Your task to perform on an android device: Search for Italian restaurants on Maps Image 0: 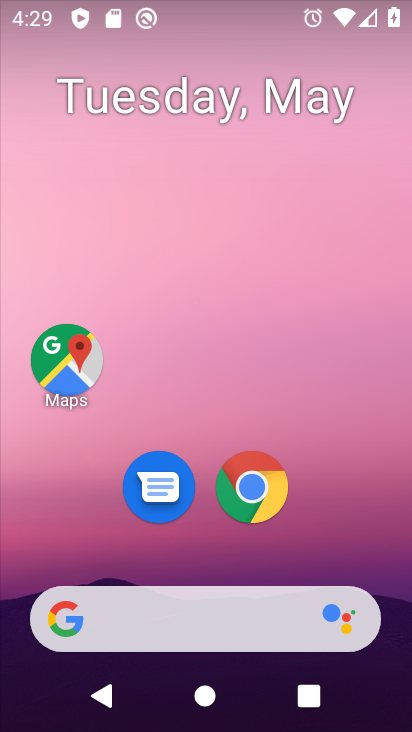
Step 0: click (65, 347)
Your task to perform on an android device: Search for Italian restaurants on Maps Image 1: 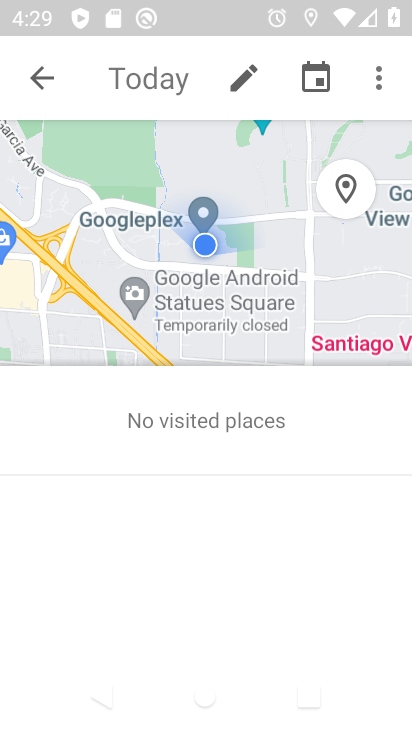
Step 1: click (52, 84)
Your task to perform on an android device: Search for Italian restaurants on Maps Image 2: 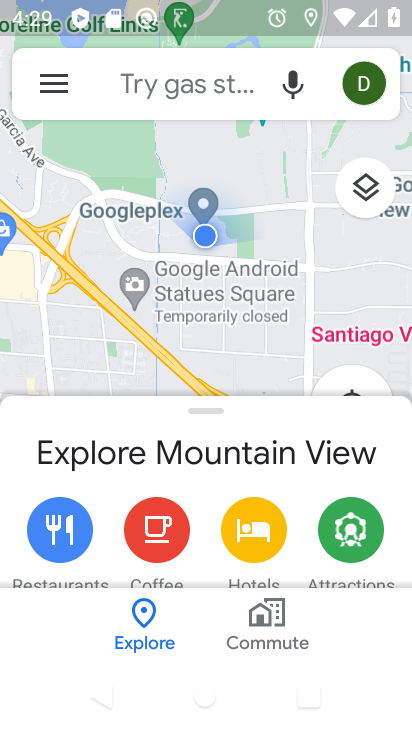
Step 2: click (157, 75)
Your task to perform on an android device: Search for Italian restaurants on Maps Image 3: 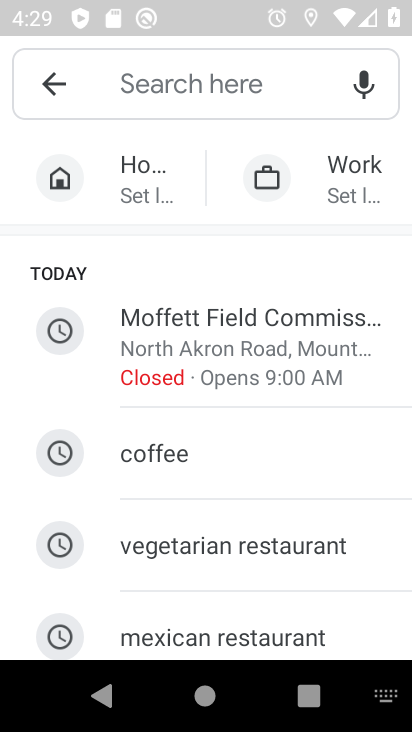
Step 3: drag from (146, 433) to (198, 102)
Your task to perform on an android device: Search for Italian restaurants on Maps Image 4: 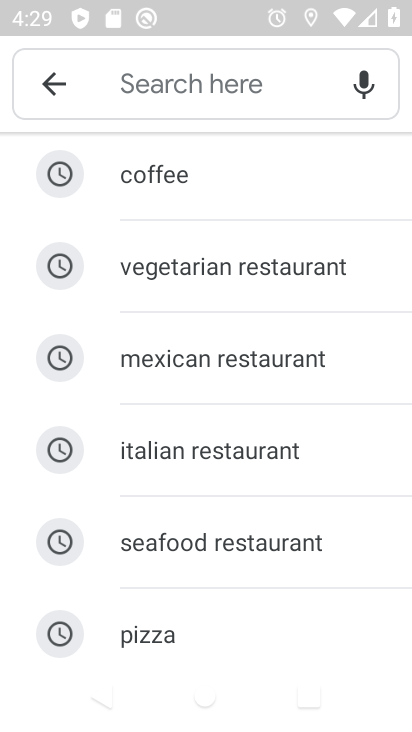
Step 4: click (177, 447)
Your task to perform on an android device: Search for Italian restaurants on Maps Image 5: 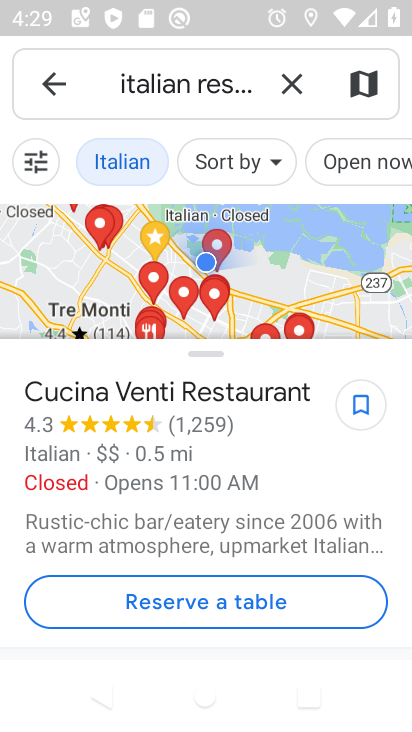
Step 5: task complete